Your task to perform on an android device: turn off airplane mode Image 0: 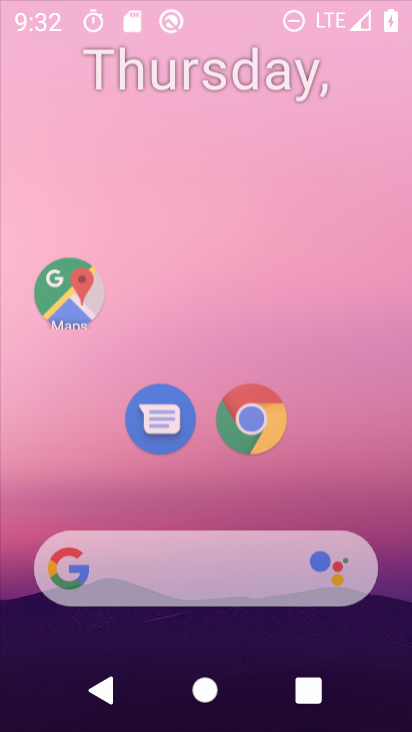
Step 0: click (213, 155)
Your task to perform on an android device: turn off airplane mode Image 1: 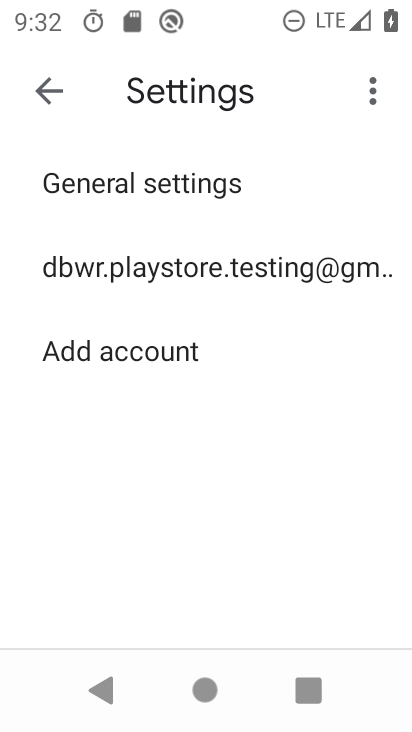
Step 1: press home button
Your task to perform on an android device: turn off airplane mode Image 2: 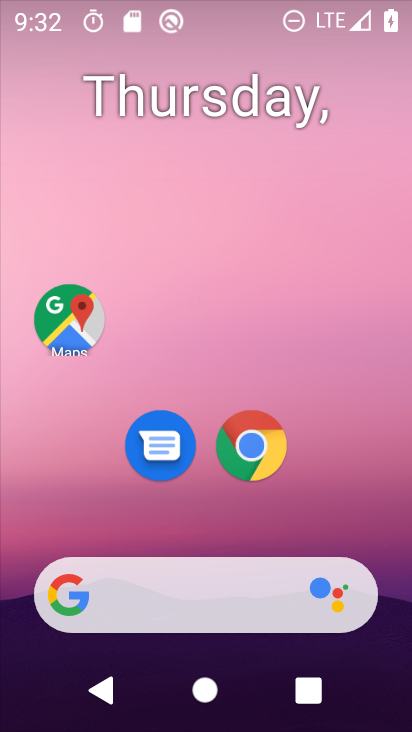
Step 2: drag from (191, 439) to (192, 171)
Your task to perform on an android device: turn off airplane mode Image 3: 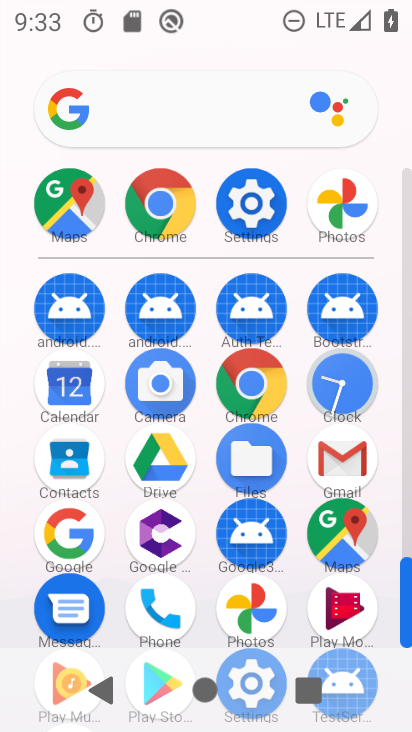
Step 3: click (253, 197)
Your task to perform on an android device: turn off airplane mode Image 4: 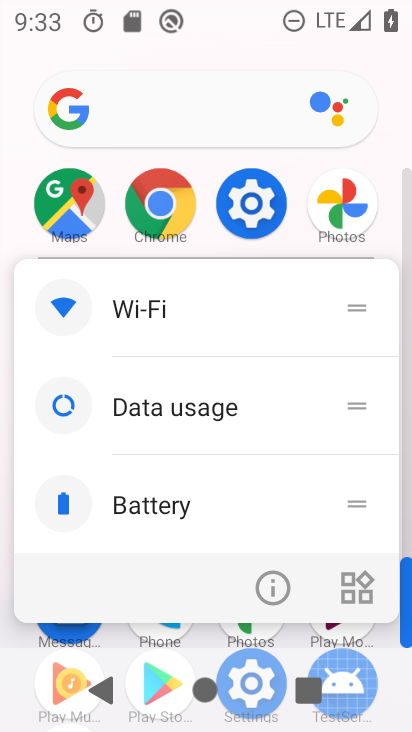
Step 4: click (269, 573)
Your task to perform on an android device: turn off airplane mode Image 5: 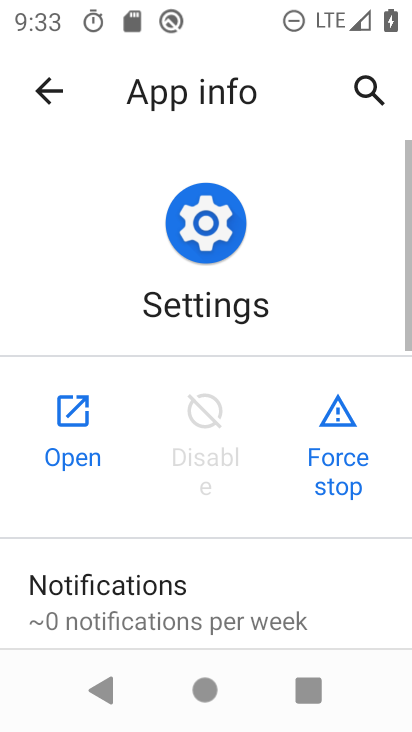
Step 5: click (90, 389)
Your task to perform on an android device: turn off airplane mode Image 6: 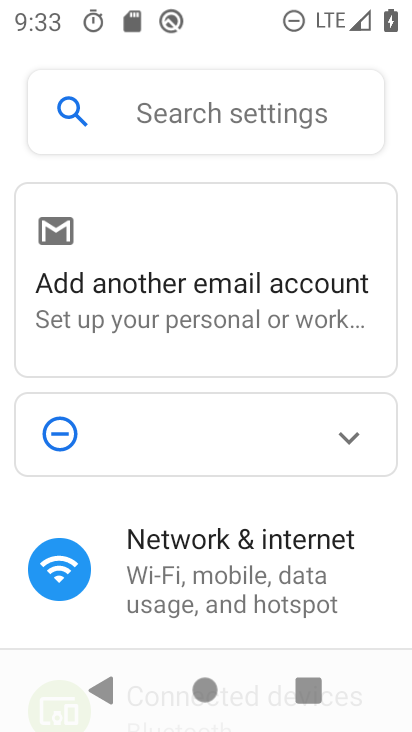
Step 6: click (203, 121)
Your task to perform on an android device: turn off airplane mode Image 7: 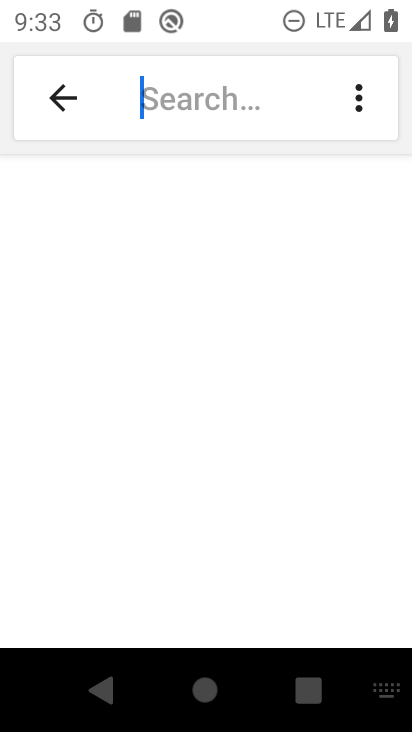
Step 7: press back button
Your task to perform on an android device: turn off airplane mode Image 8: 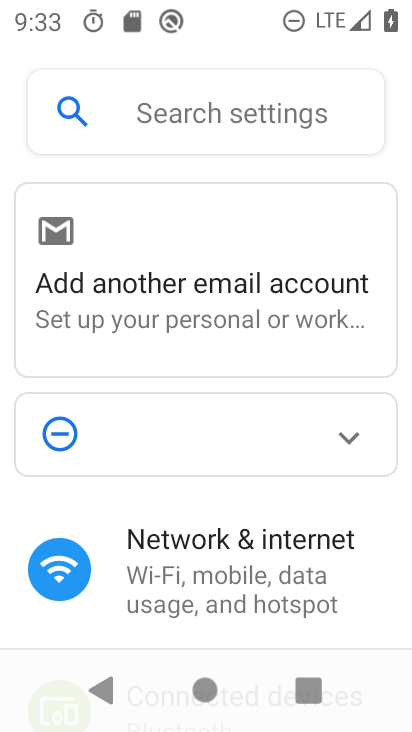
Step 8: drag from (211, 543) to (226, 173)
Your task to perform on an android device: turn off airplane mode Image 9: 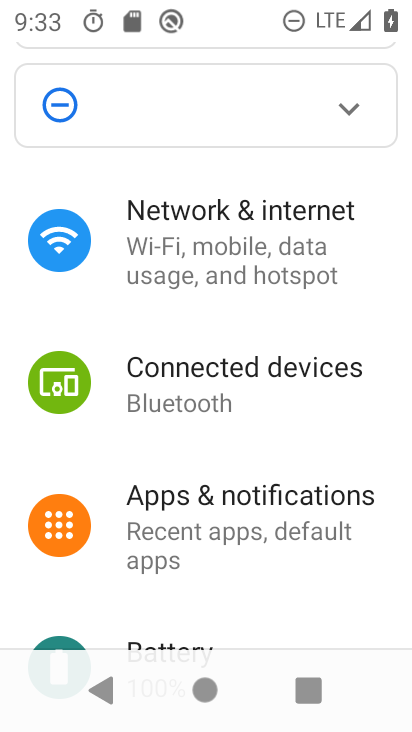
Step 9: click (195, 232)
Your task to perform on an android device: turn off airplane mode Image 10: 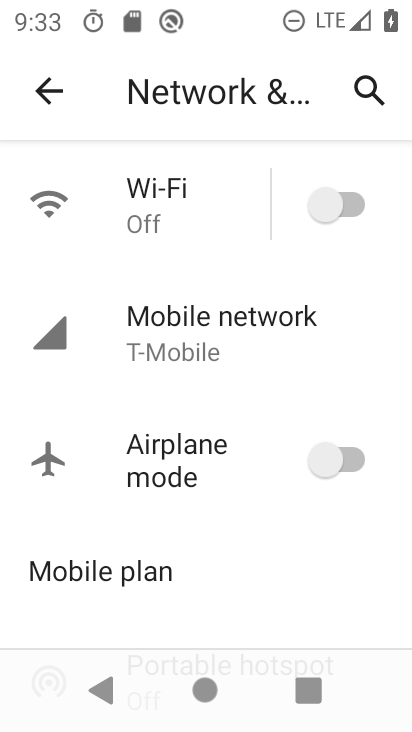
Step 10: task complete